Your task to perform on an android device: Open Youtube and go to the subscriptions tab Image 0: 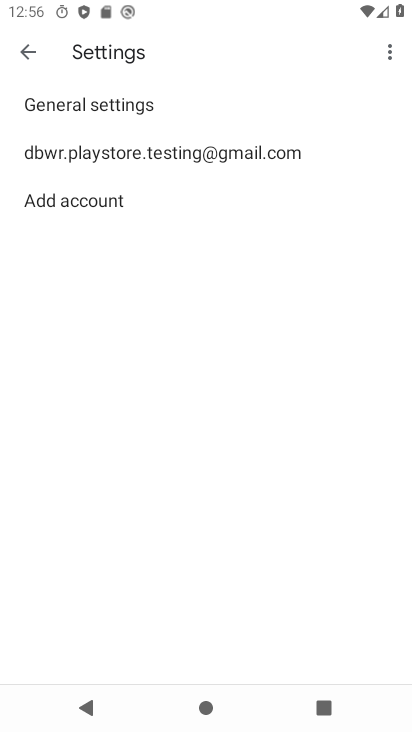
Step 0: press home button
Your task to perform on an android device: Open Youtube and go to the subscriptions tab Image 1: 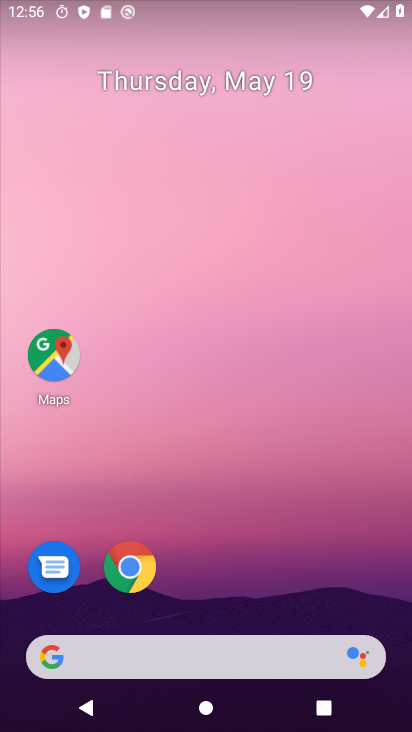
Step 1: drag from (194, 640) to (346, 214)
Your task to perform on an android device: Open Youtube and go to the subscriptions tab Image 2: 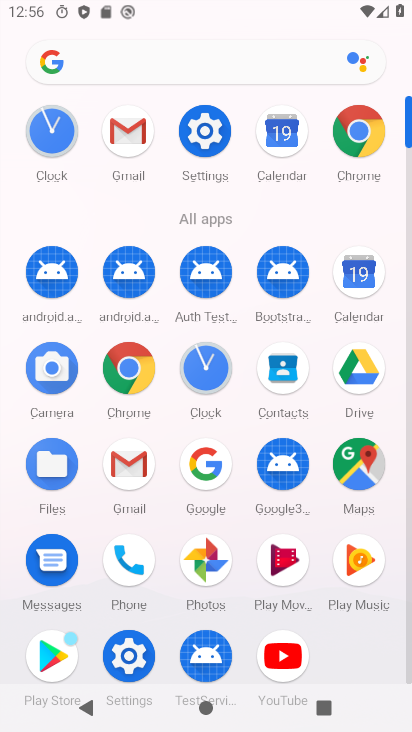
Step 2: click (288, 659)
Your task to perform on an android device: Open Youtube and go to the subscriptions tab Image 3: 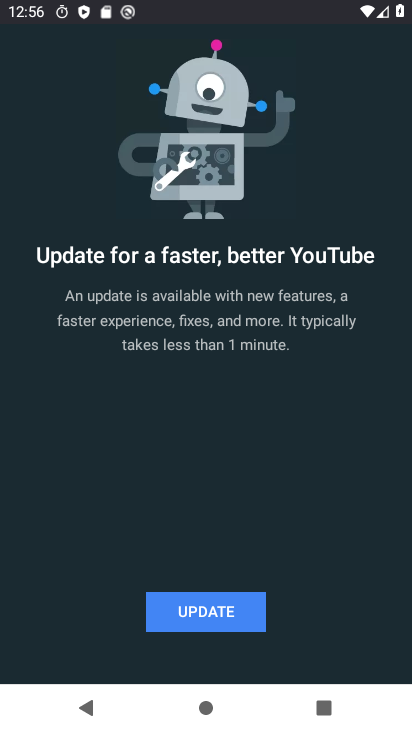
Step 3: click (240, 614)
Your task to perform on an android device: Open Youtube and go to the subscriptions tab Image 4: 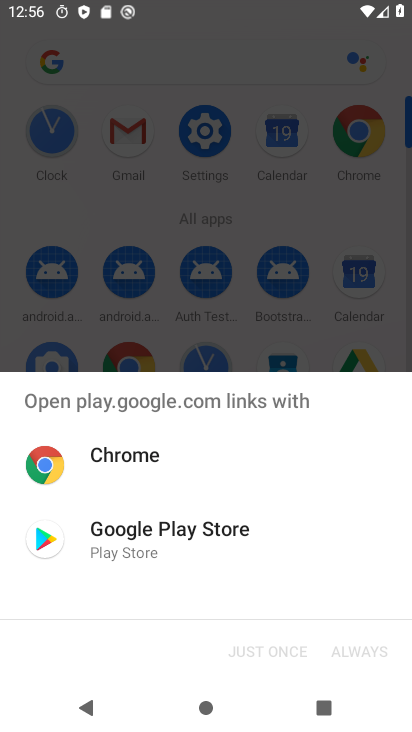
Step 4: click (176, 543)
Your task to perform on an android device: Open Youtube and go to the subscriptions tab Image 5: 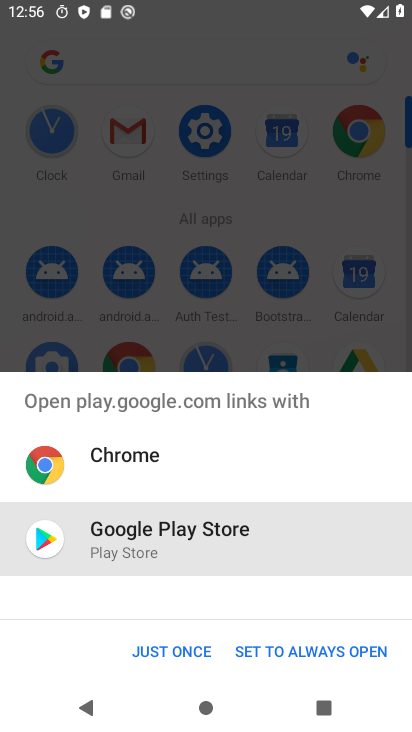
Step 5: click (188, 650)
Your task to perform on an android device: Open Youtube and go to the subscriptions tab Image 6: 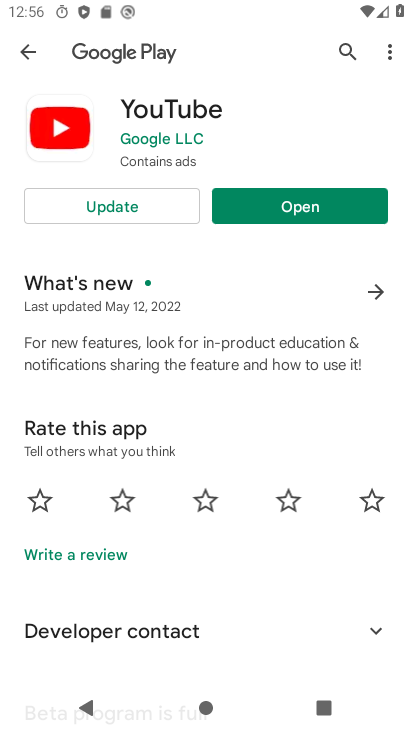
Step 6: click (167, 203)
Your task to perform on an android device: Open Youtube and go to the subscriptions tab Image 7: 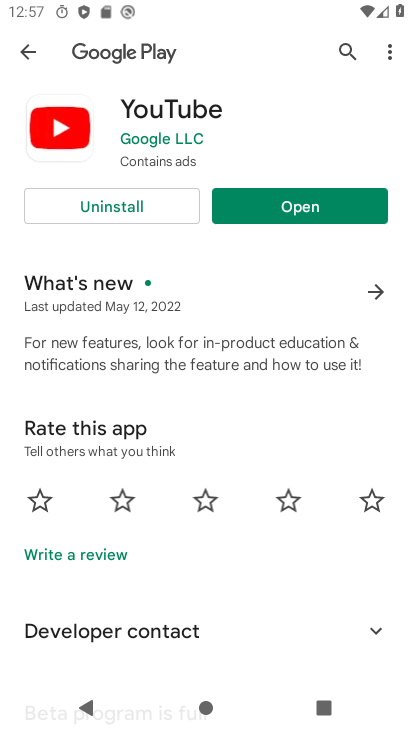
Step 7: click (311, 203)
Your task to perform on an android device: Open Youtube and go to the subscriptions tab Image 8: 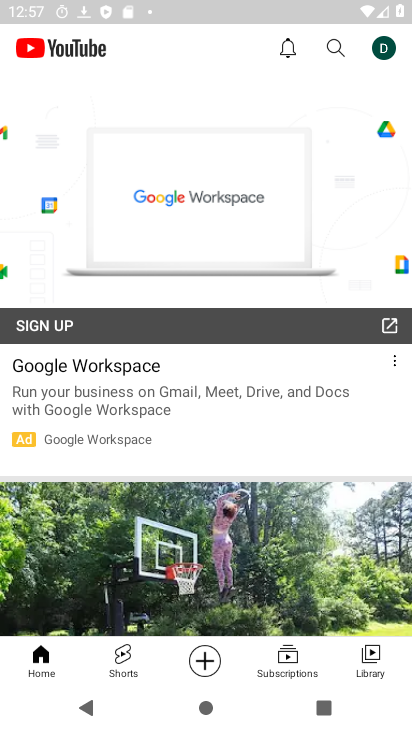
Step 8: click (293, 661)
Your task to perform on an android device: Open Youtube and go to the subscriptions tab Image 9: 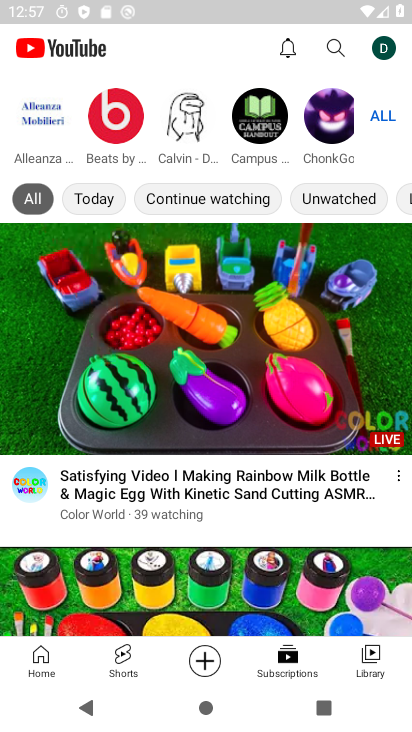
Step 9: task complete